Your task to perform on an android device: toggle data saver in the chrome app Image 0: 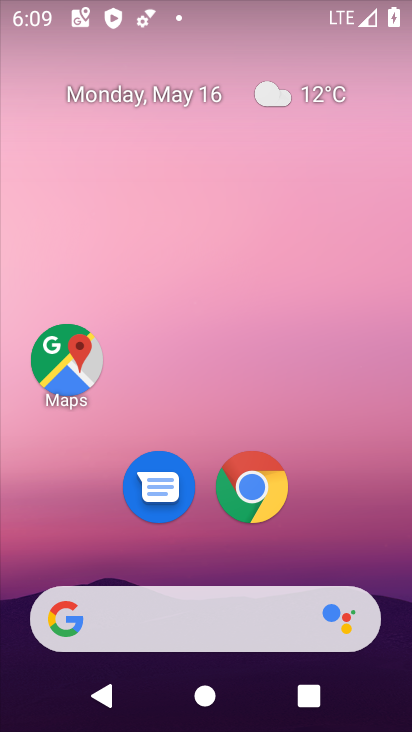
Step 0: click (252, 486)
Your task to perform on an android device: toggle data saver in the chrome app Image 1: 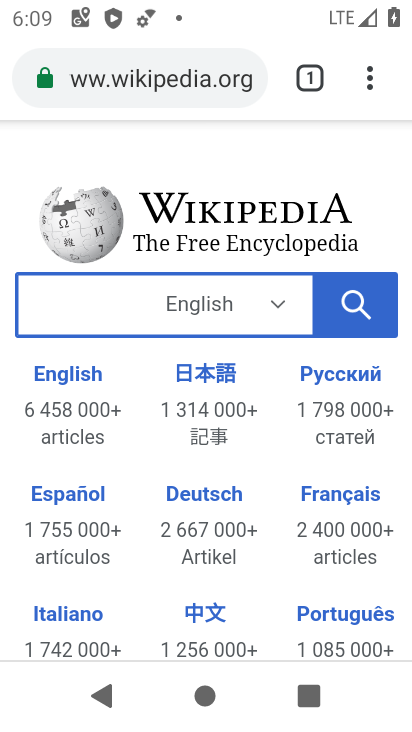
Step 1: drag from (369, 68) to (262, 552)
Your task to perform on an android device: toggle data saver in the chrome app Image 2: 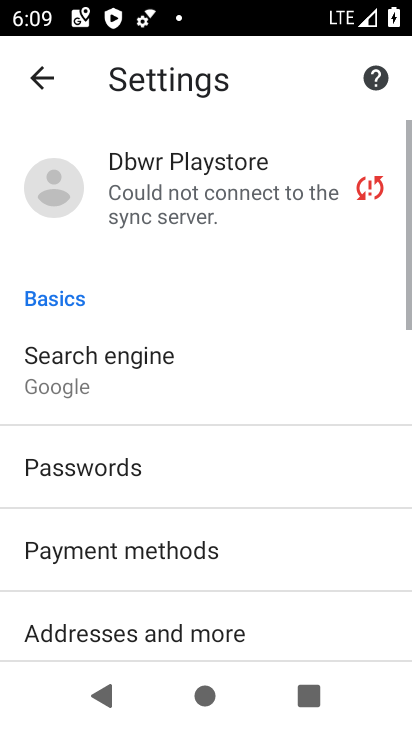
Step 2: click (222, 186)
Your task to perform on an android device: toggle data saver in the chrome app Image 3: 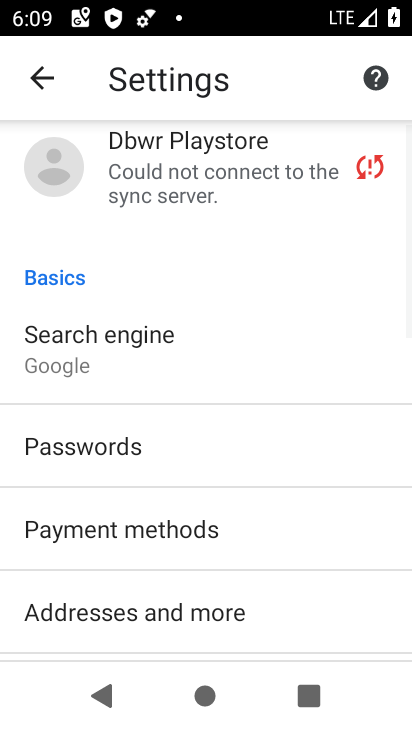
Step 3: click (247, 130)
Your task to perform on an android device: toggle data saver in the chrome app Image 4: 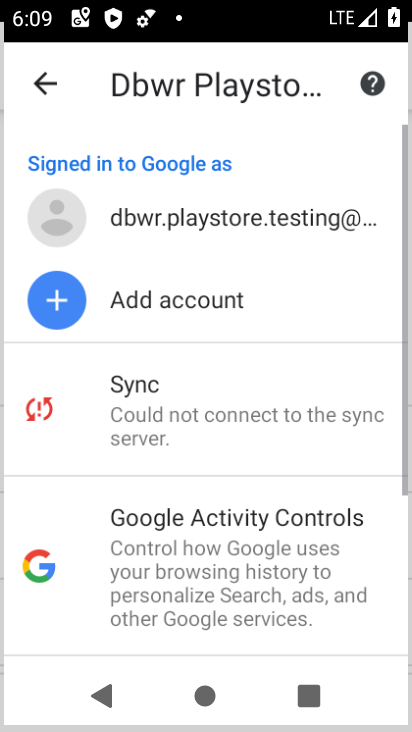
Step 4: drag from (215, 511) to (266, 118)
Your task to perform on an android device: toggle data saver in the chrome app Image 5: 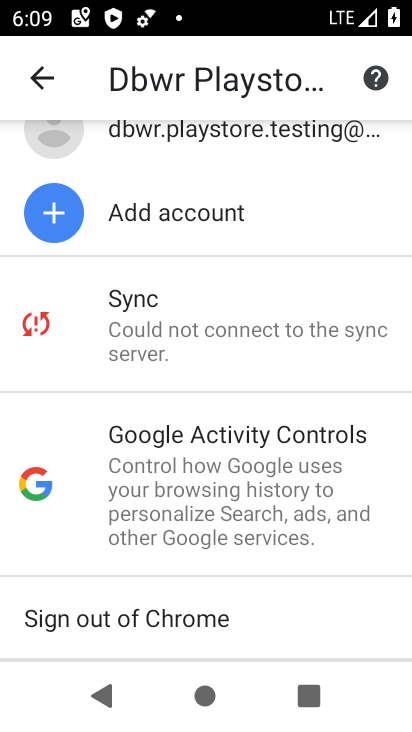
Step 5: click (61, 79)
Your task to perform on an android device: toggle data saver in the chrome app Image 6: 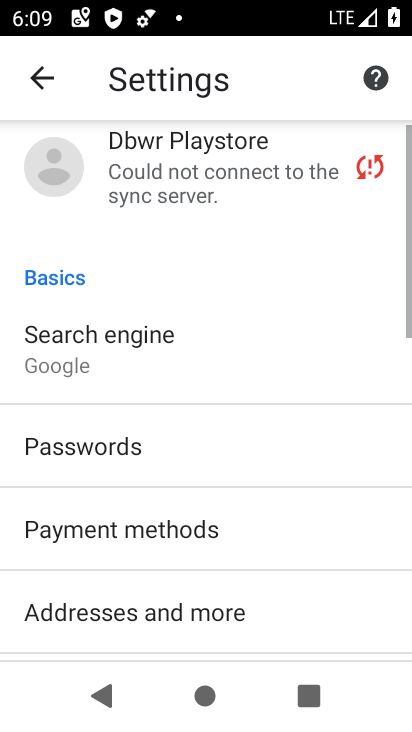
Step 6: drag from (276, 603) to (280, 199)
Your task to perform on an android device: toggle data saver in the chrome app Image 7: 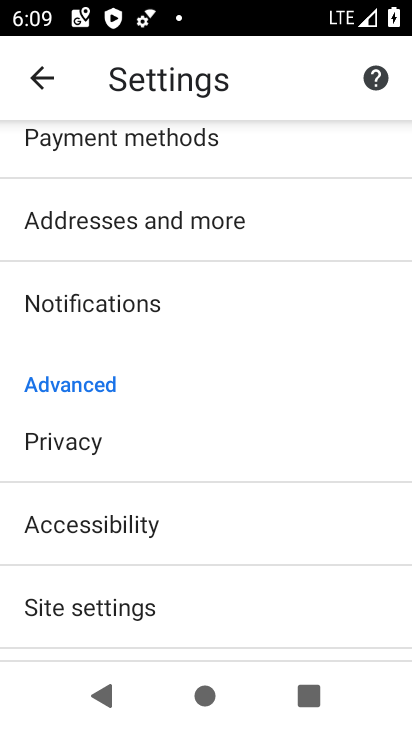
Step 7: drag from (211, 534) to (238, 193)
Your task to perform on an android device: toggle data saver in the chrome app Image 8: 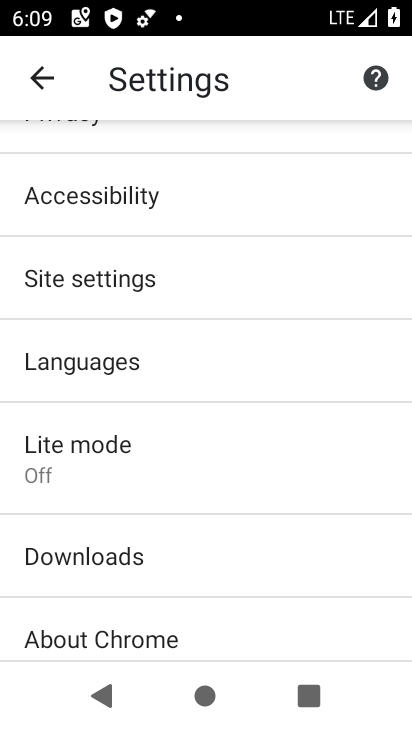
Step 8: click (119, 287)
Your task to perform on an android device: toggle data saver in the chrome app Image 9: 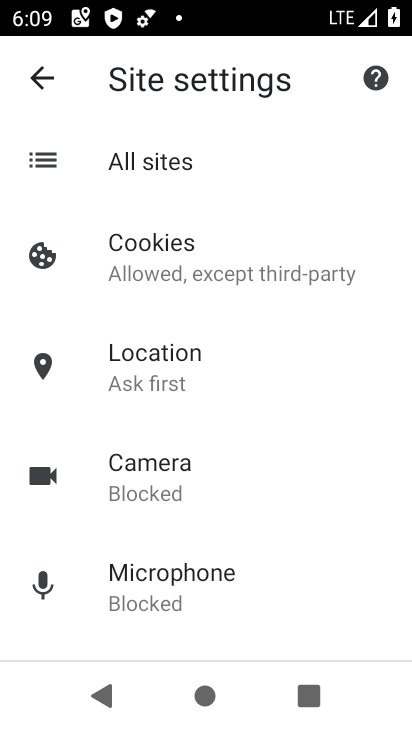
Step 9: drag from (268, 498) to (246, 87)
Your task to perform on an android device: toggle data saver in the chrome app Image 10: 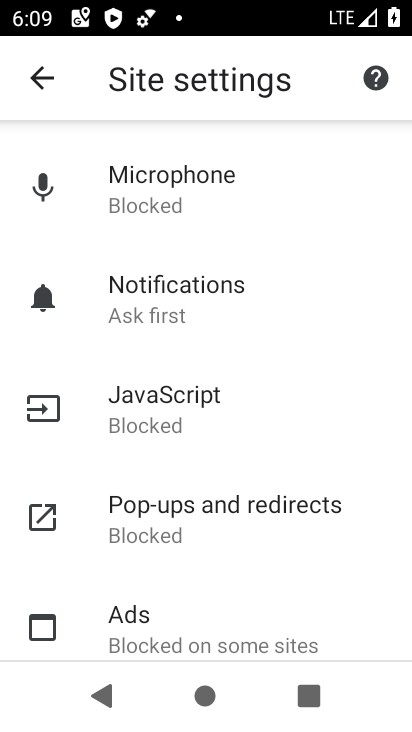
Step 10: click (185, 391)
Your task to perform on an android device: toggle data saver in the chrome app Image 11: 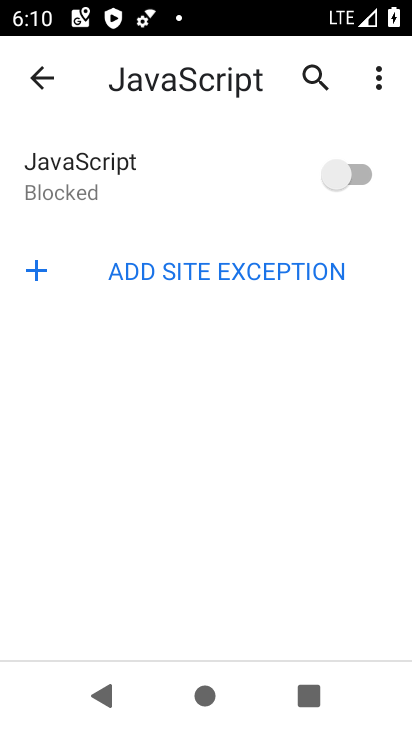
Step 11: click (41, 74)
Your task to perform on an android device: toggle data saver in the chrome app Image 12: 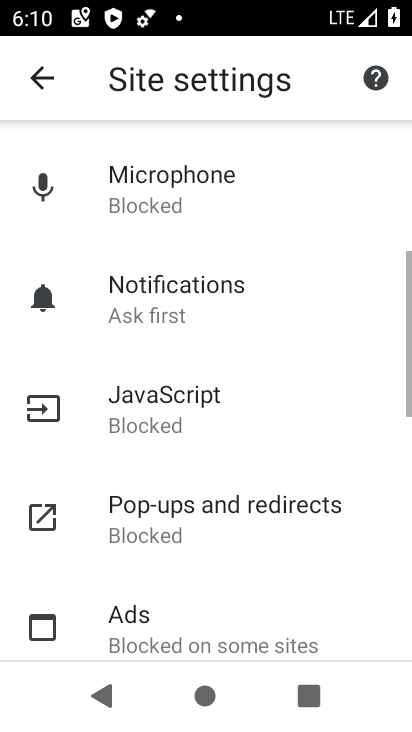
Step 12: click (53, 77)
Your task to perform on an android device: toggle data saver in the chrome app Image 13: 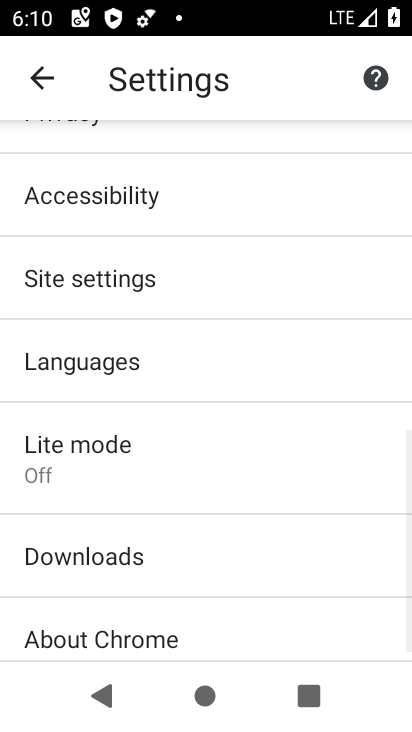
Step 13: click (183, 477)
Your task to perform on an android device: toggle data saver in the chrome app Image 14: 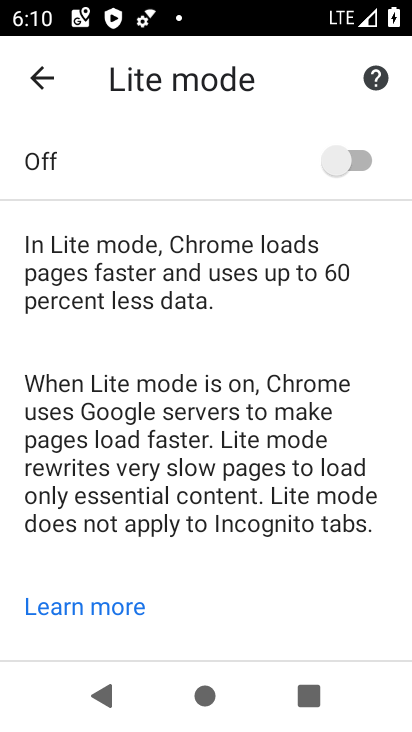
Step 14: click (346, 178)
Your task to perform on an android device: toggle data saver in the chrome app Image 15: 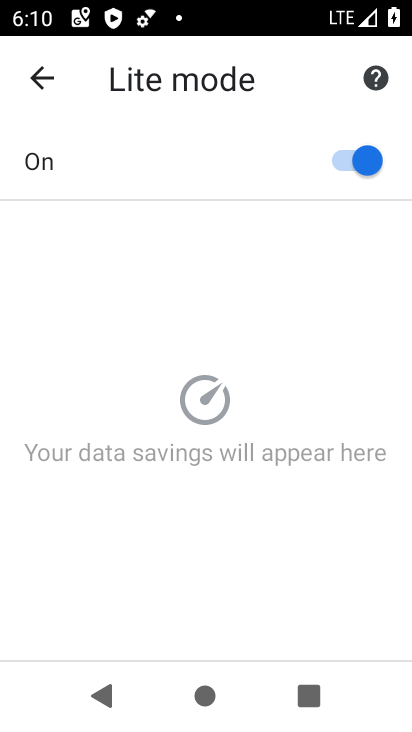
Step 15: task complete